Your task to perform on an android device: See recent photos Image 0: 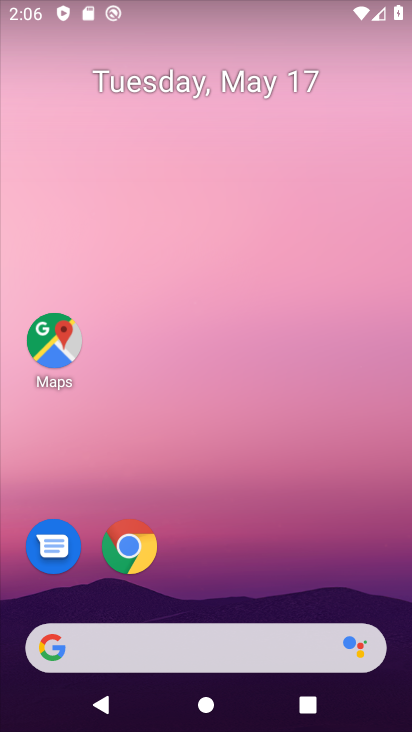
Step 0: drag from (185, 588) to (167, 223)
Your task to perform on an android device: See recent photos Image 1: 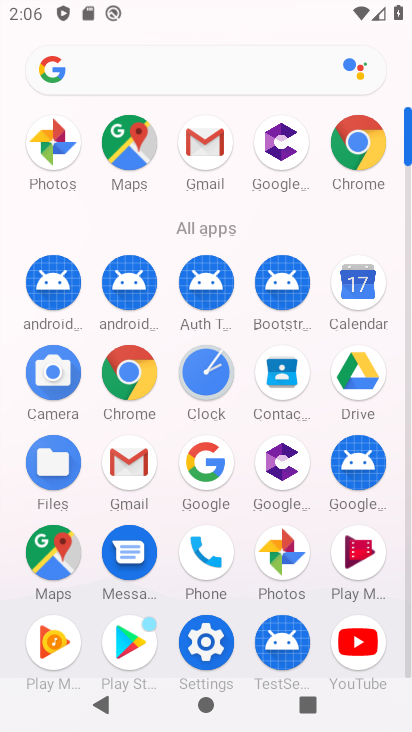
Step 1: click (287, 574)
Your task to perform on an android device: See recent photos Image 2: 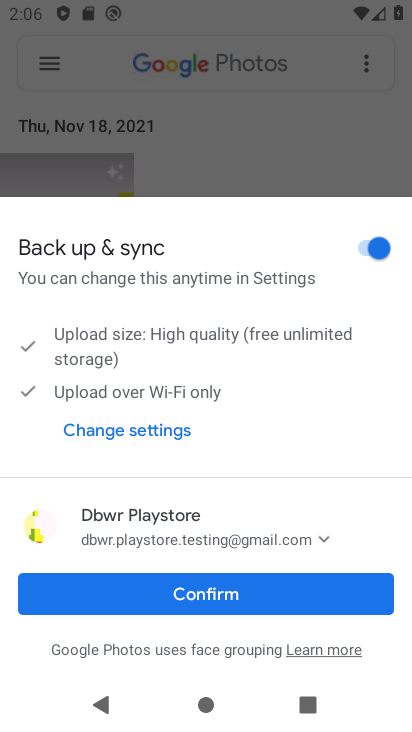
Step 2: click (279, 597)
Your task to perform on an android device: See recent photos Image 3: 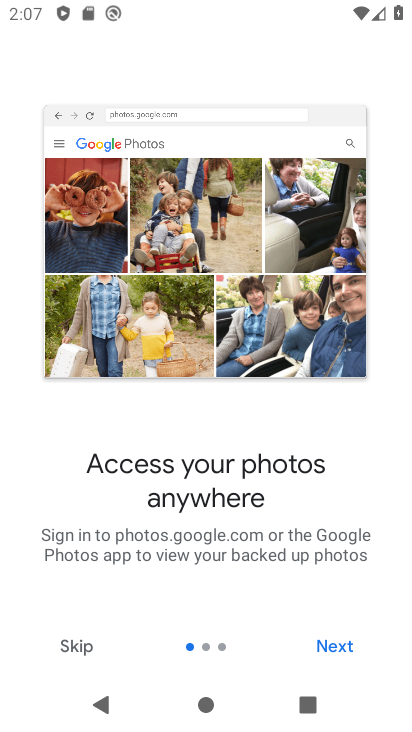
Step 3: click (355, 652)
Your task to perform on an android device: See recent photos Image 4: 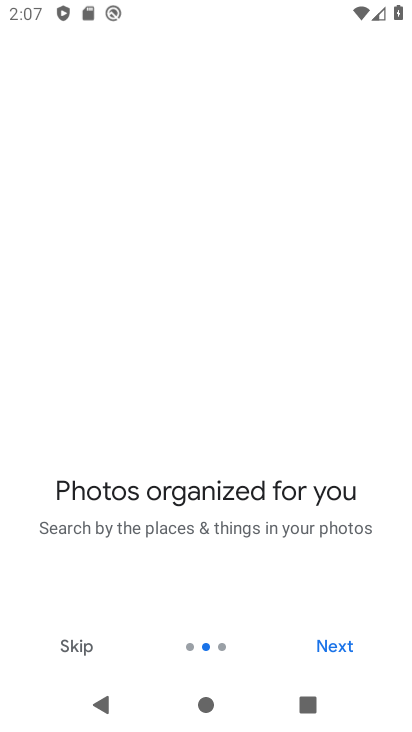
Step 4: click (355, 652)
Your task to perform on an android device: See recent photos Image 5: 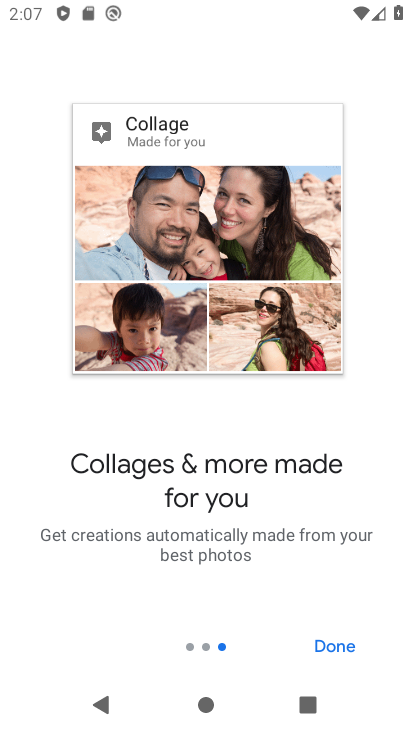
Step 5: click (356, 652)
Your task to perform on an android device: See recent photos Image 6: 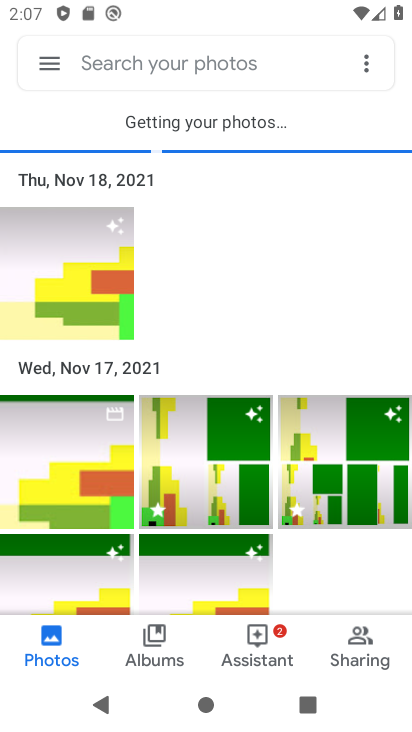
Step 6: task complete